Your task to perform on an android device: Go to accessibility settings Image 0: 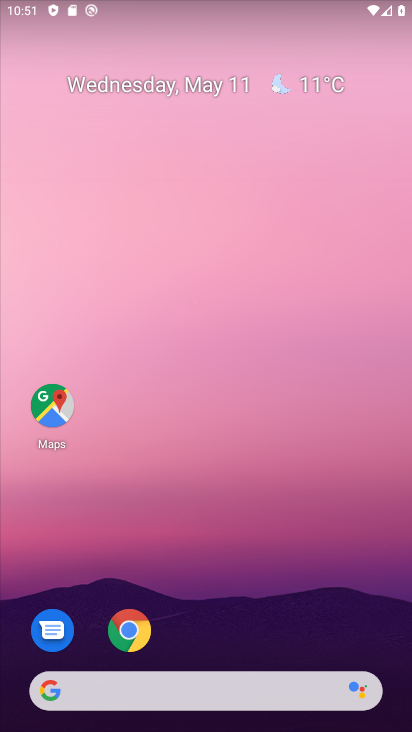
Step 0: drag from (207, 601) to (228, 268)
Your task to perform on an android device: Go to accessibility settings Image 1: 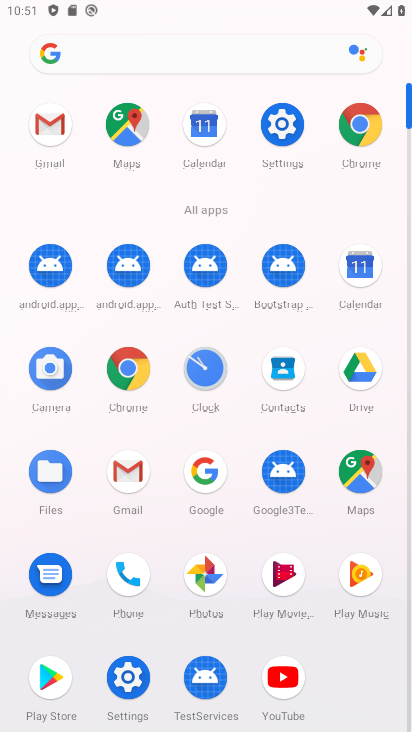
Step 1: click (275, 131)
Your task to perform on an android device: Go to accessibility settings Image 2: 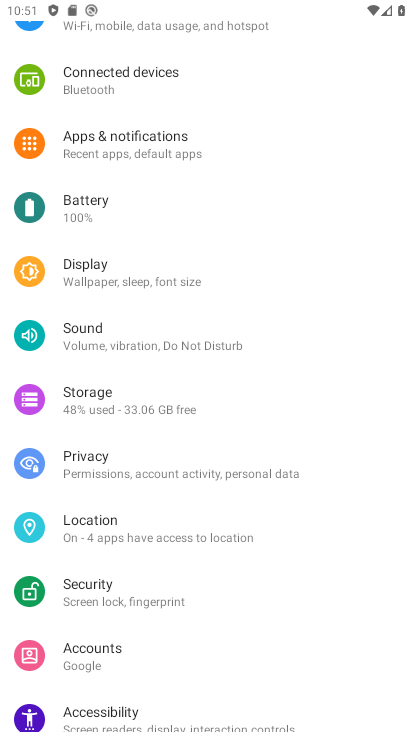
Step 2: click (97, 720)
Your task to perform on an android device: Go to accessibility settings Image 3: 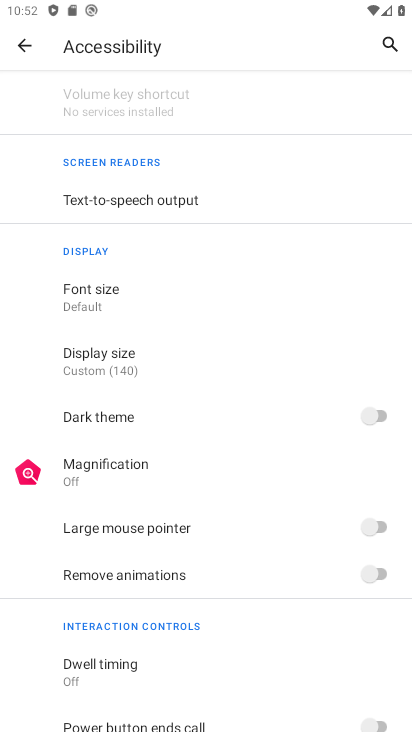
Step 3: task complete